Your task to perform on an android device: What is the recent news? Image 0: 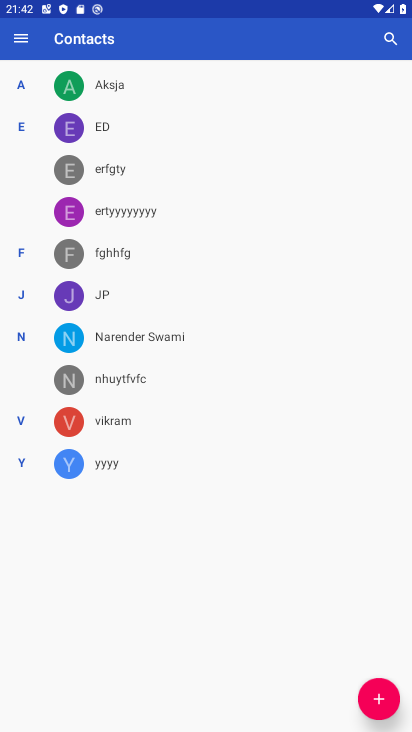
Step 0: press home button
Your task to perform on an android device: What is the recent news? Image 1: 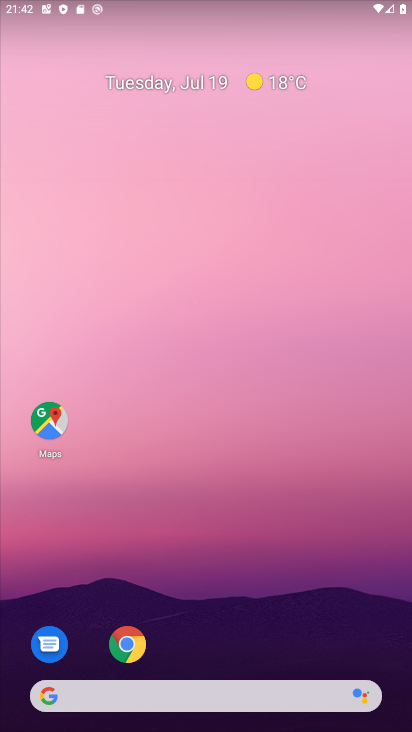
Step 1: task complete